Your task to perform on an android device: Search for Mexican restaurants on Maps Image 0: 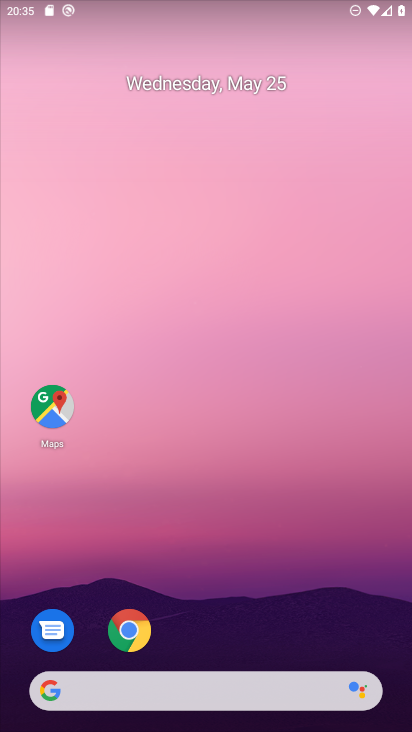
Step 0: drag from (232, 627) to (233, 105)
Your task to perform on an android device: Search for Mexican restaurants on Maps Image 1: 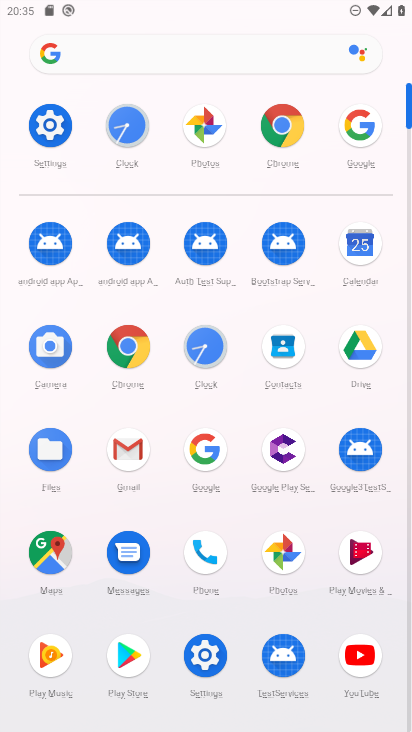
Step 1: click (46, 552)
Your task to perform on an android device: Search for Mexican restaurants on Maps Image 2: 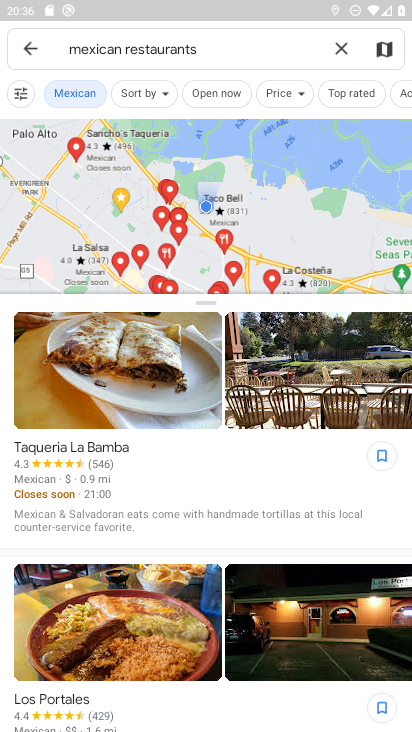
Step 2: task complete